Your task to perform on an android device: Open location settings Image 0: 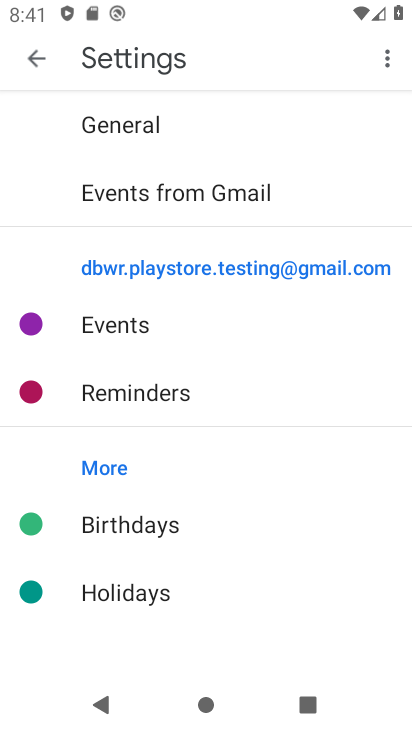
Step 0: press home button
Your task to perform on an android device: Open location settings Image 1: 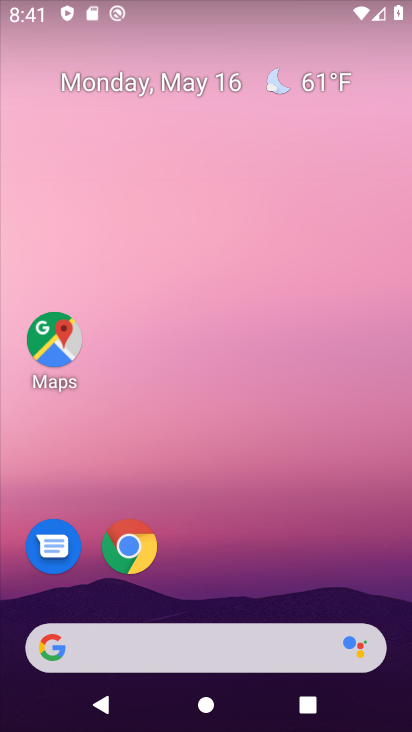
Step 1: drag from (340, 445) to (222, 93)
Your task to perform on an android device: Open location settings Image 2: 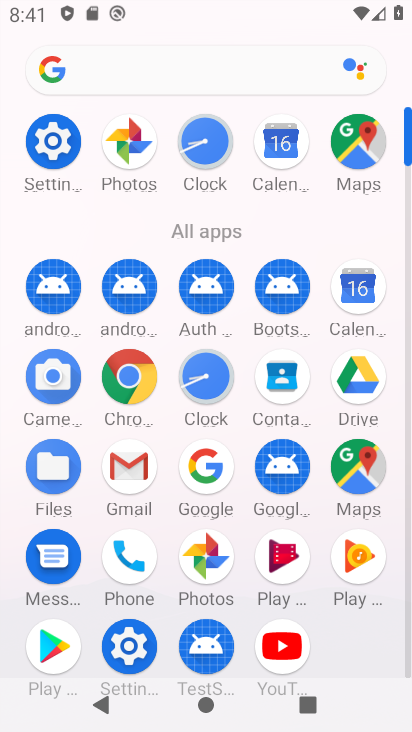
Step 2: click (42, 151)
Your task to perform on an android device: Open location settings Image 3: 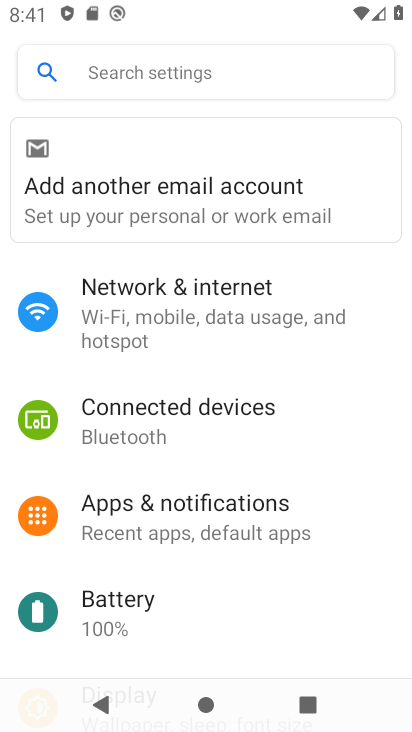
Step 3: drag from (189, 573) to (56, 15)
Your task to perform on an android device: Open location settings Image 4: 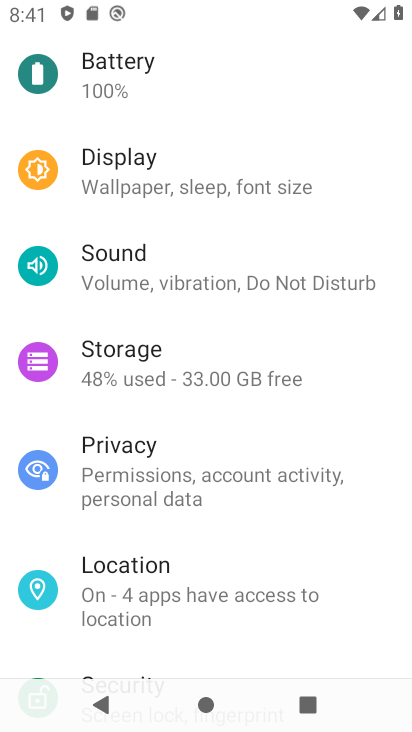
Step 4: click (141, 607)
Your task to perform on an android device: Open location settings Image 5: 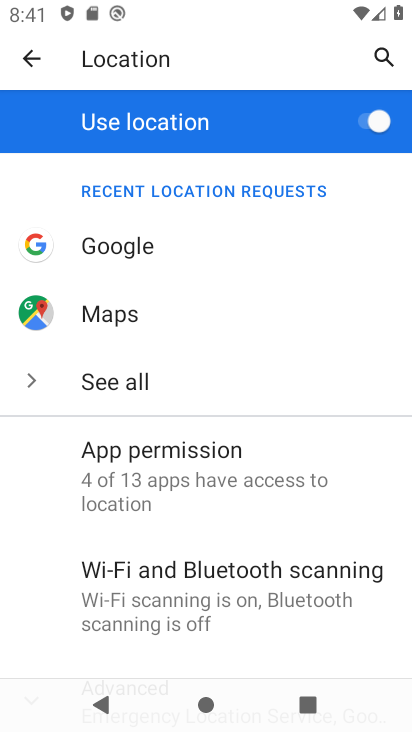
Step 5: task complete